Your task to perform on an android device: Go to eBay Image 0: 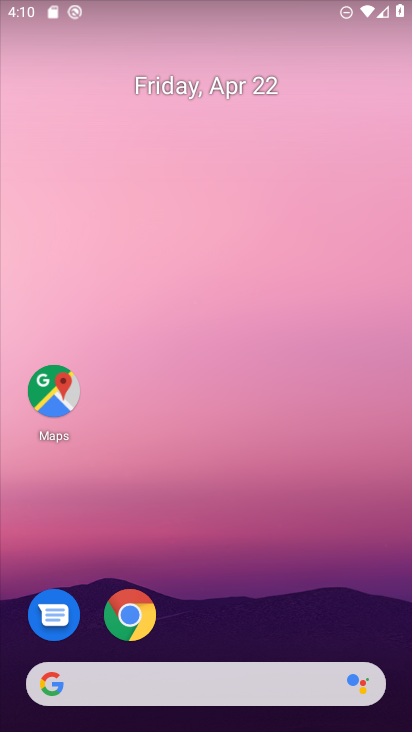
Step 0: click (134, 613)
Your task to perform on an android device: Go to eBay Image 1: 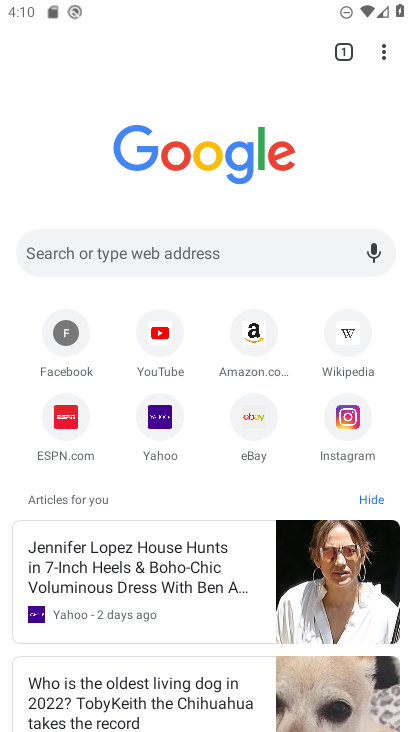
Step 1: drag from (198, 257) to (222, 148)
Your task to perform on an android device: Go to eBay Image 2: 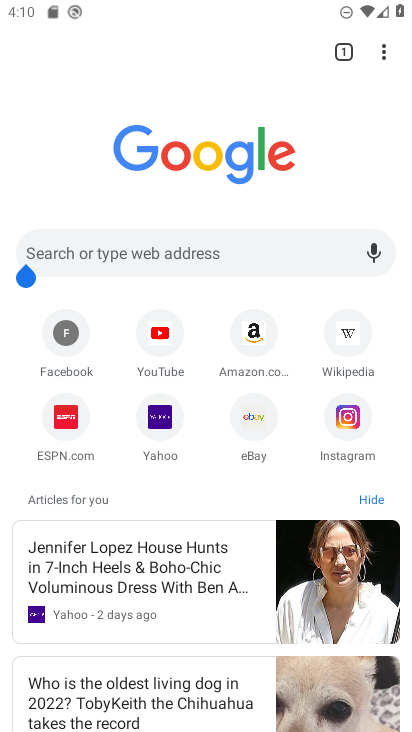
Step 2: click (259, 400)
Your task to perform on an android device: Go to eBay Image 3: 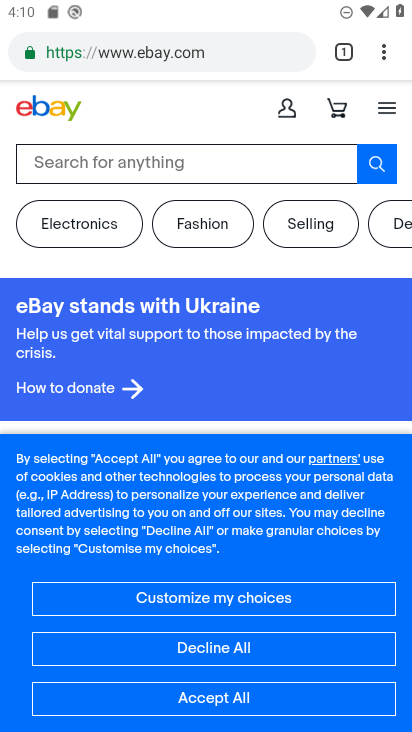
Step 3: task complete